Your task to perform on an android device: refresh tabs in the chrome app Image 0: 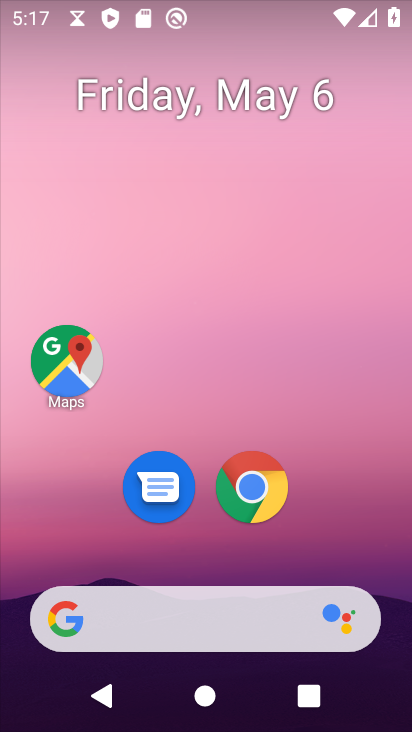
Step 0: click (252, 481)
Your task to perform on an android device: refresh tabs in the chrome app Image 1: 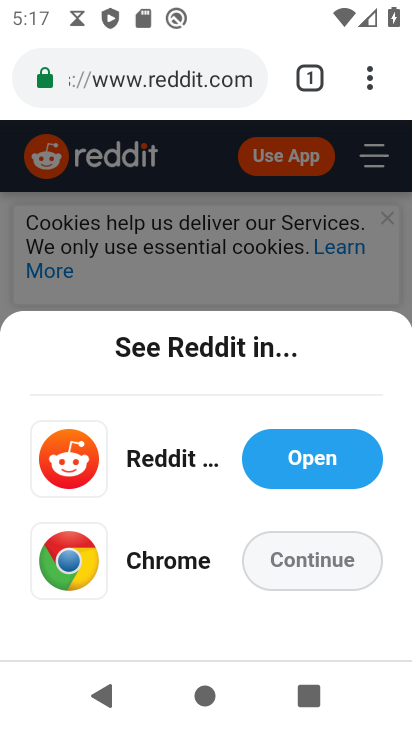
Step 1: click (372, 79)
Your task to perform on an android device: refresh tabs in the chrome app Image 2: 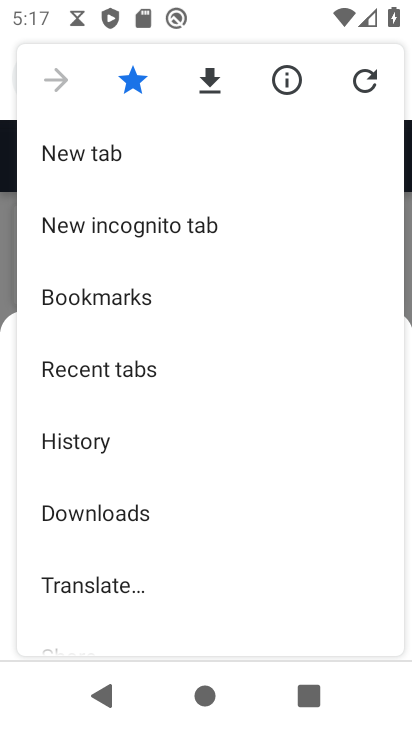
Step 2: click (372, 77)
Your task to perform on an android device: refresh tabs in the chrome app Image 3: 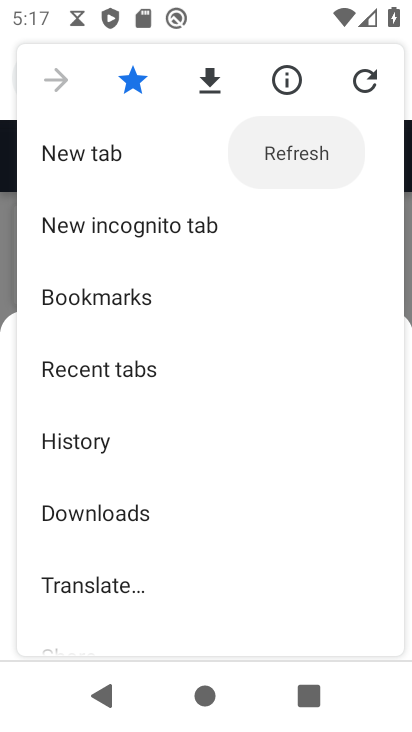
Step 3: click (372, 78)
Your task to perform on an android device: refresh tabs in the chrome app Image 4: 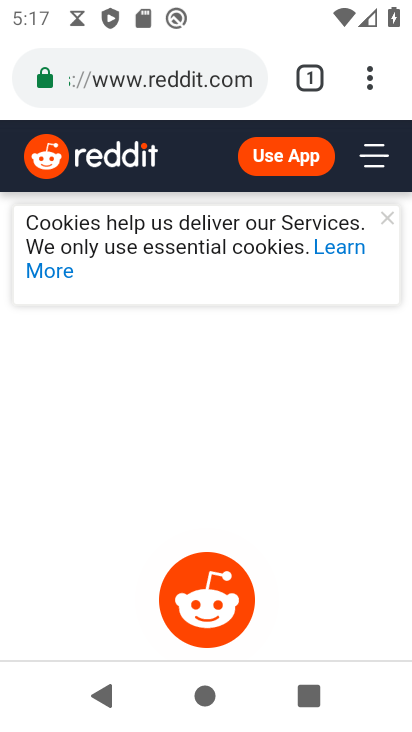
Step 4: task complete